Your task to perform on an android device: toggle priority inbox in the gmail app Image 0: 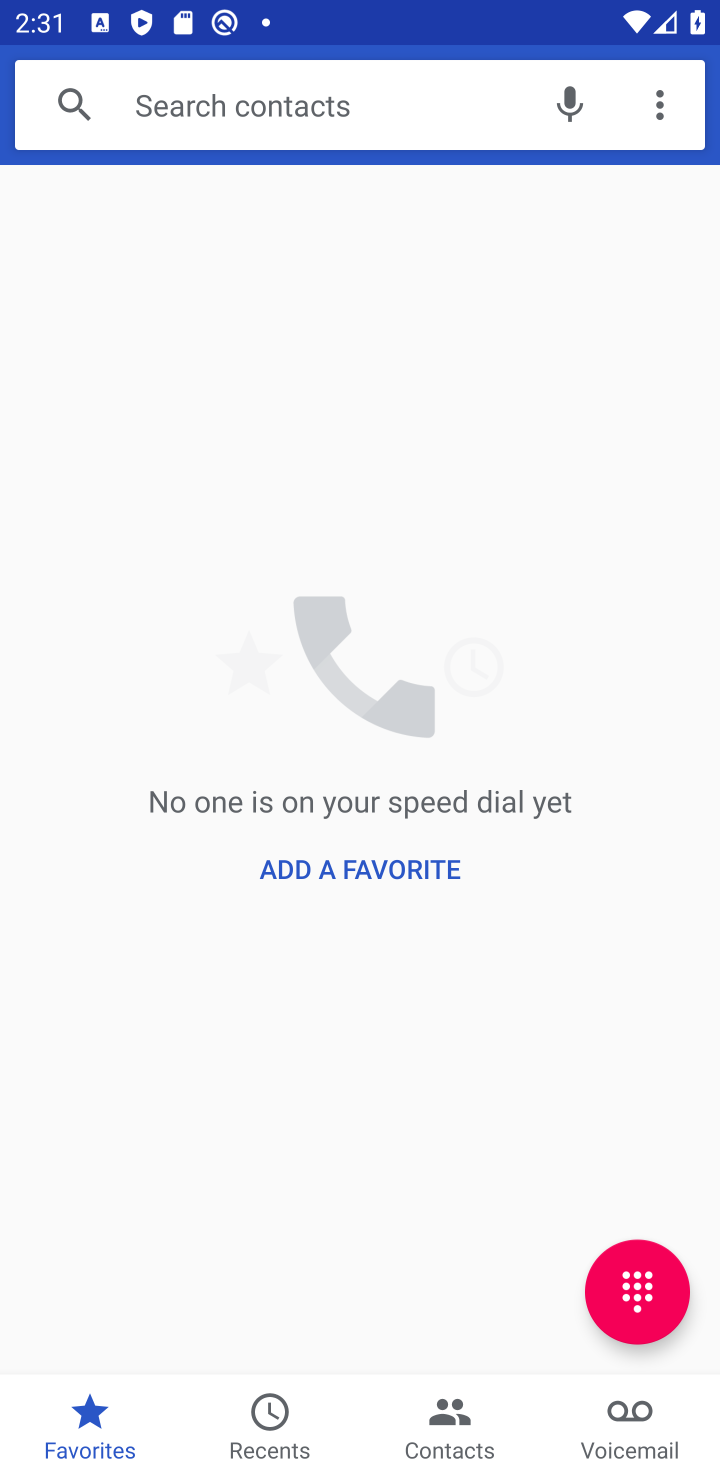
Step 0: press home button
Your task to perform on an android device: toggle priority inbox in the gmail app Image 1: 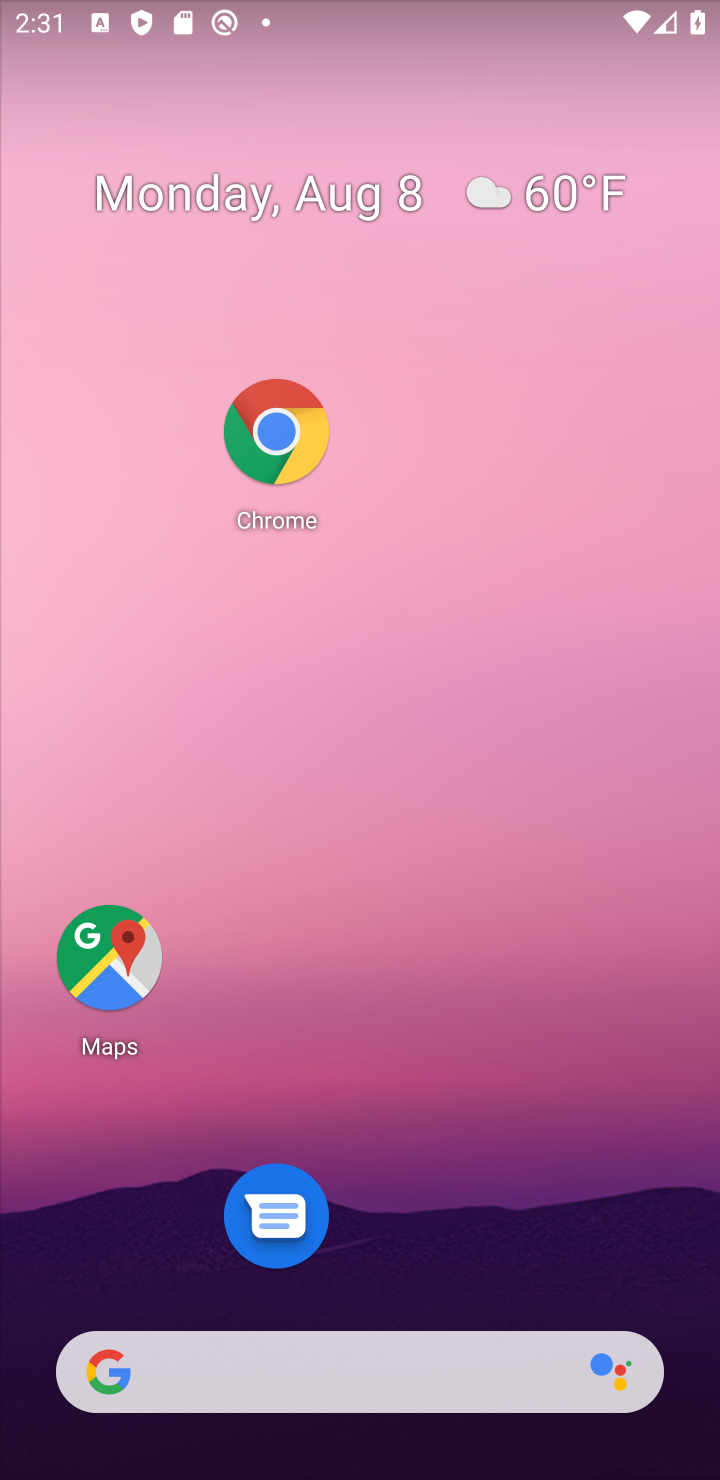
Step 1: drag from (408, 1397) to (401, 307)
Your task to perform on an android device: toggle priority inbox in the gmail app Image 2: 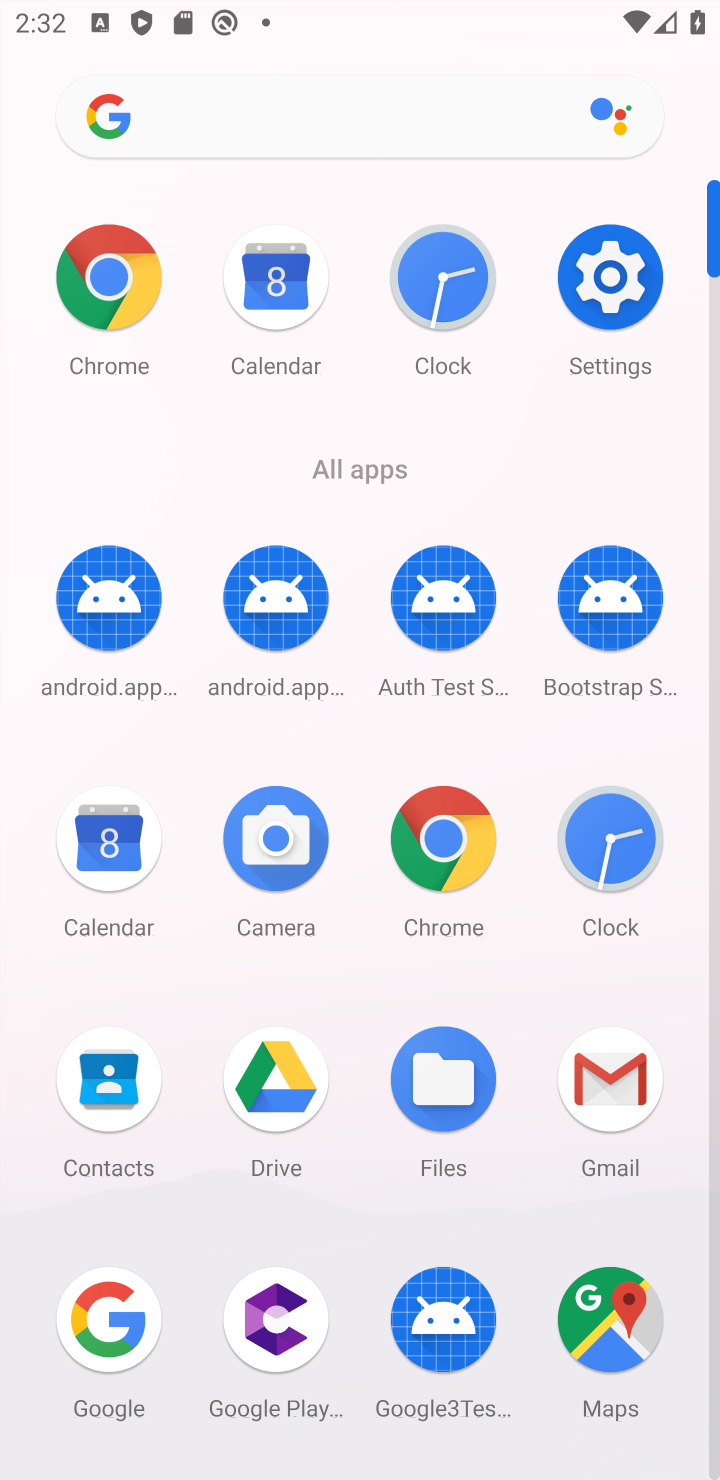
Step 2: click (584, 1087)
Your task to perform on an android device: toggle priority inbox in the gmail app Image 3: 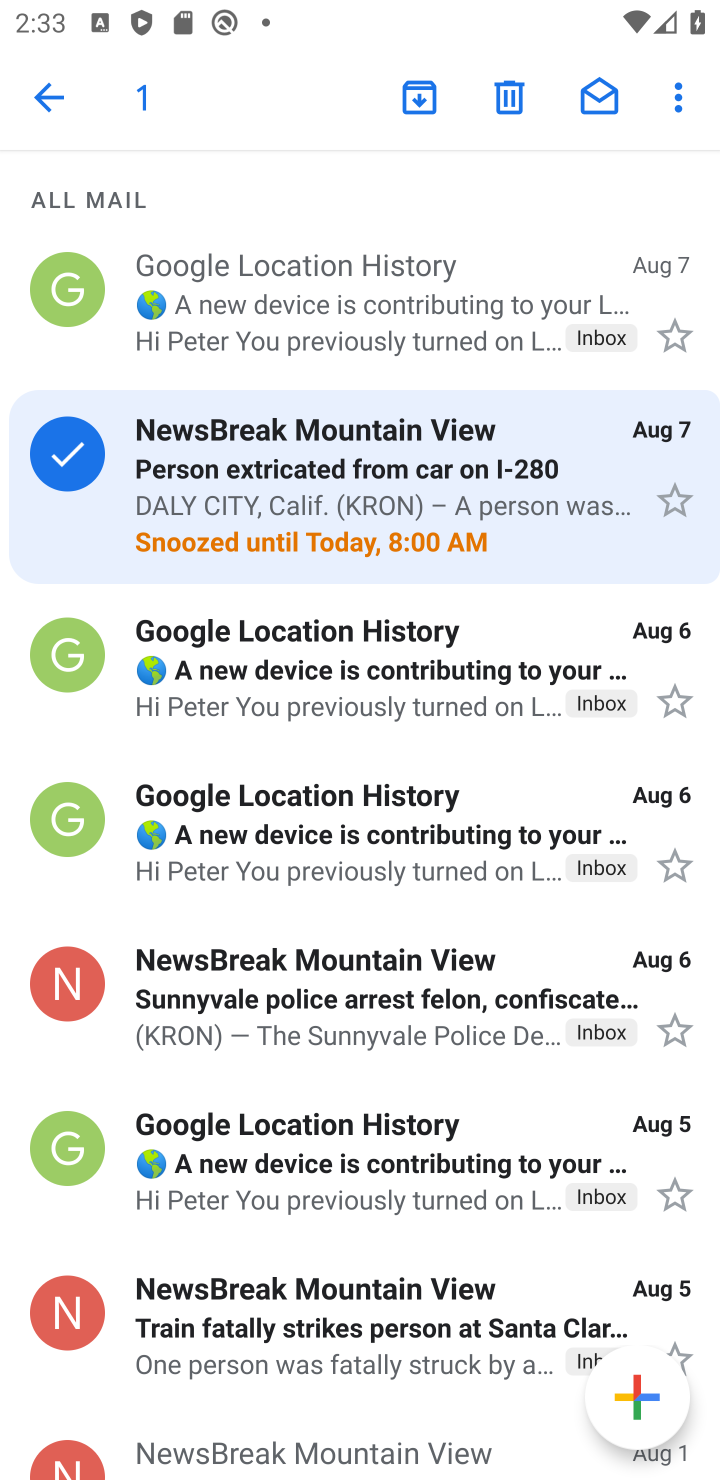
Step 3: click (75, 100)
Your task to perform on an android device: toggle priority inbox in the gmail app Image 4: 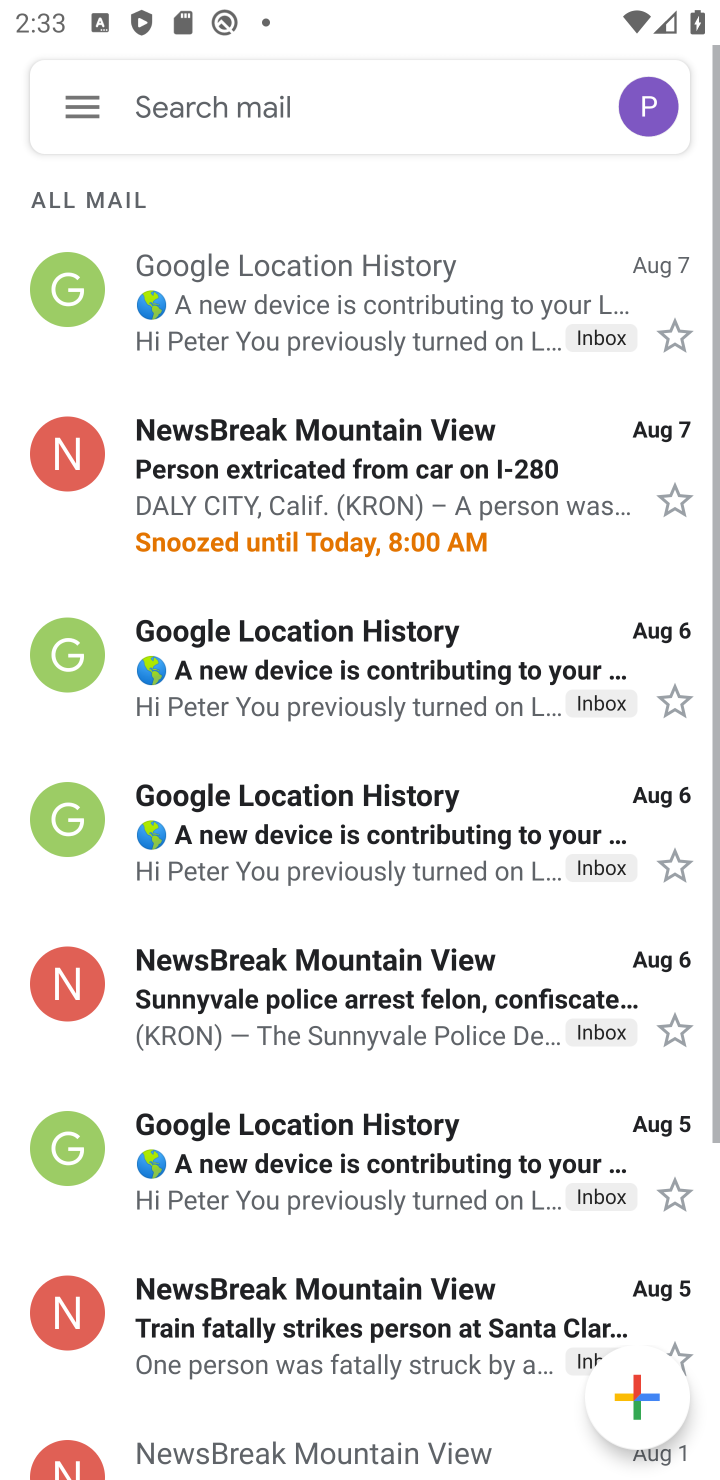
Step 4: click (82, 98)
Your task to perform on an android device: toggle priority inbox in the gmail app Image 5: 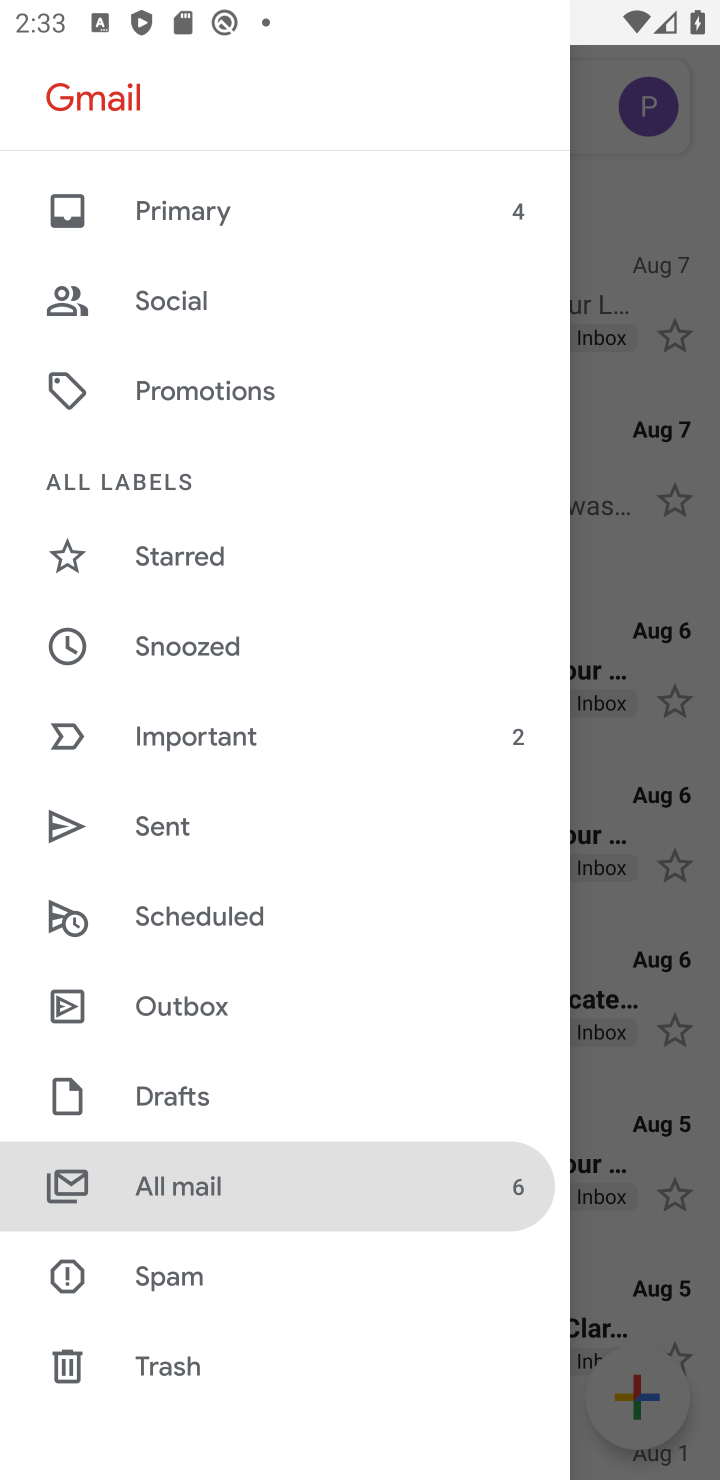
Step 5: drag from (170, 1363) to (149, 491)
Your task to perform on an android device: toggle priority inbox in the gmail app Image 6: 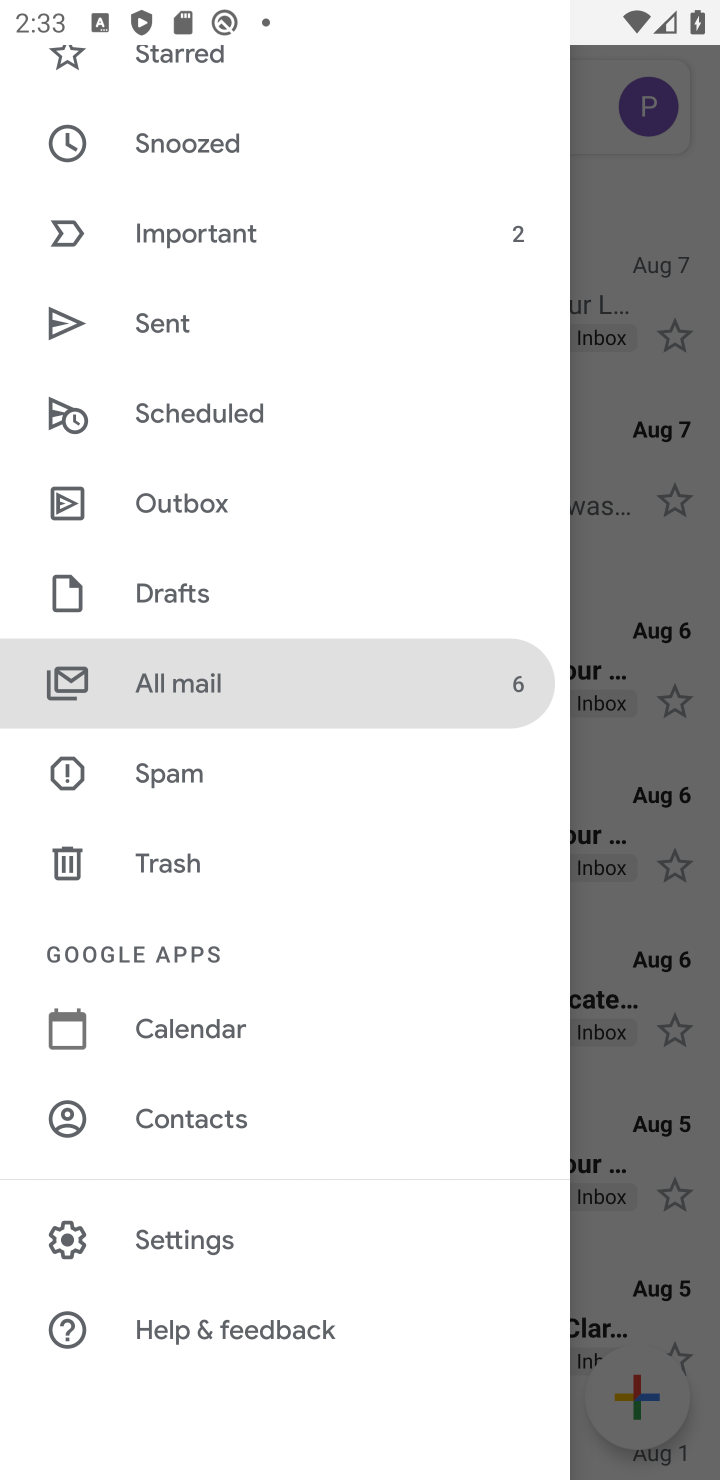
Step 6: click (124, 1255)
Your task to perform on an android device: toggle priority inbox in the gmail app Image 7: 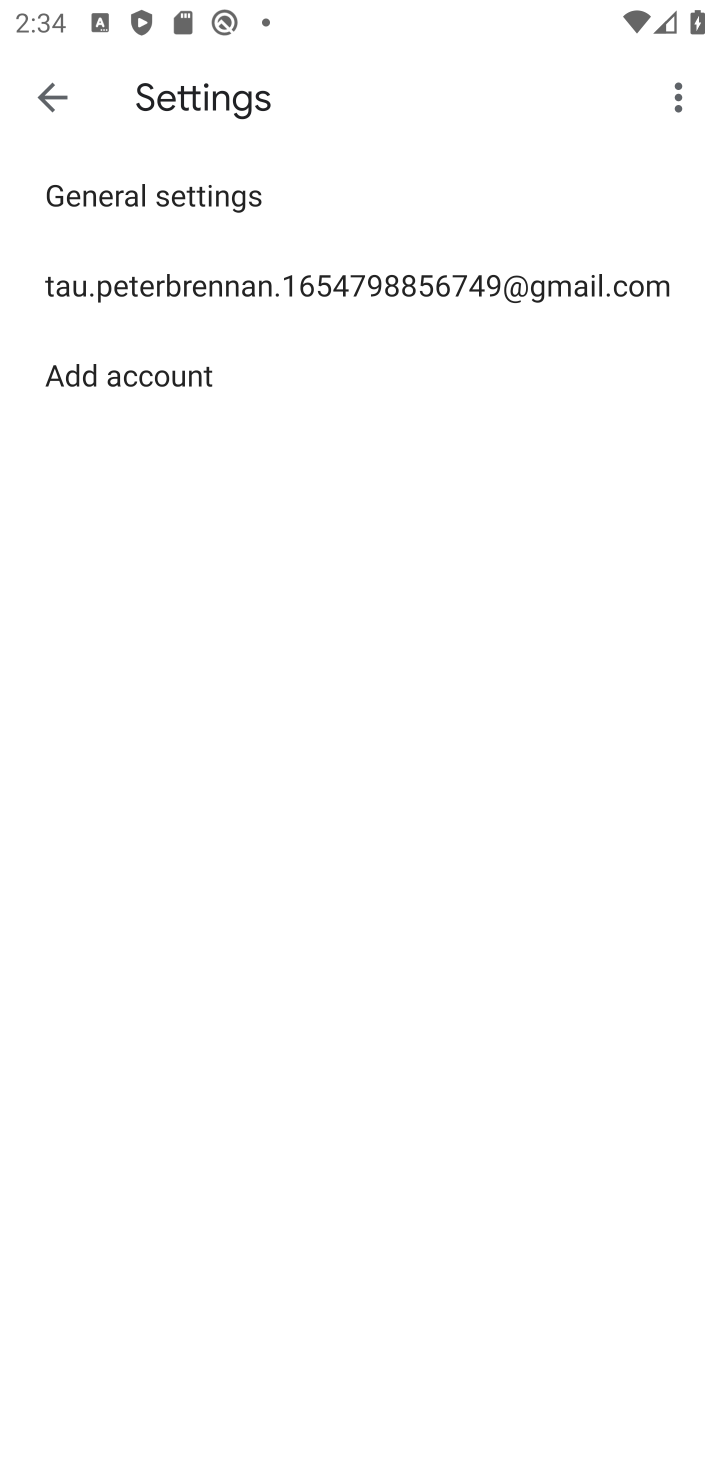
Step 7: click (310, 296)
Your task to perform on an android device: toggle priority inbox in the gmail app Image 8: 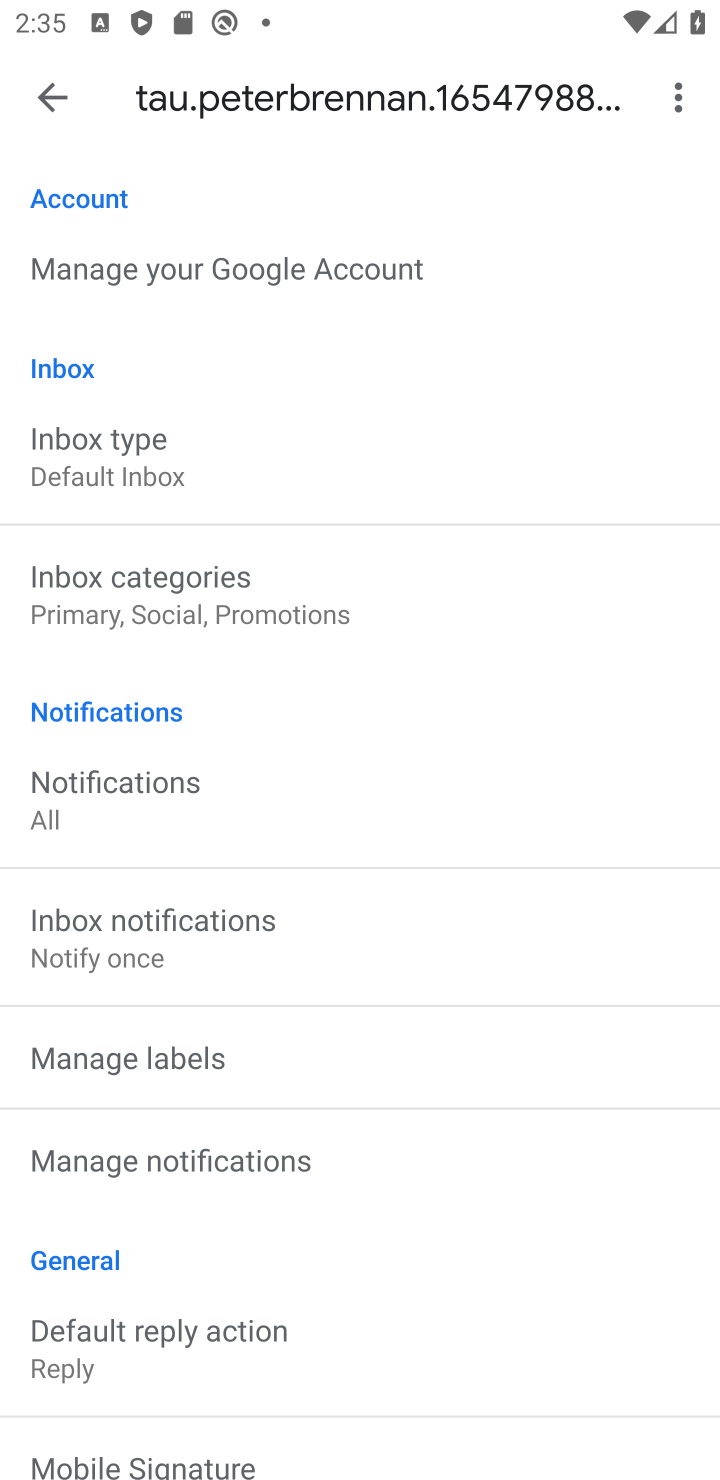
Step 8: click (146, 459)
Your task to perform on an android device: toggle priority inbox in the gmail app Image 9: 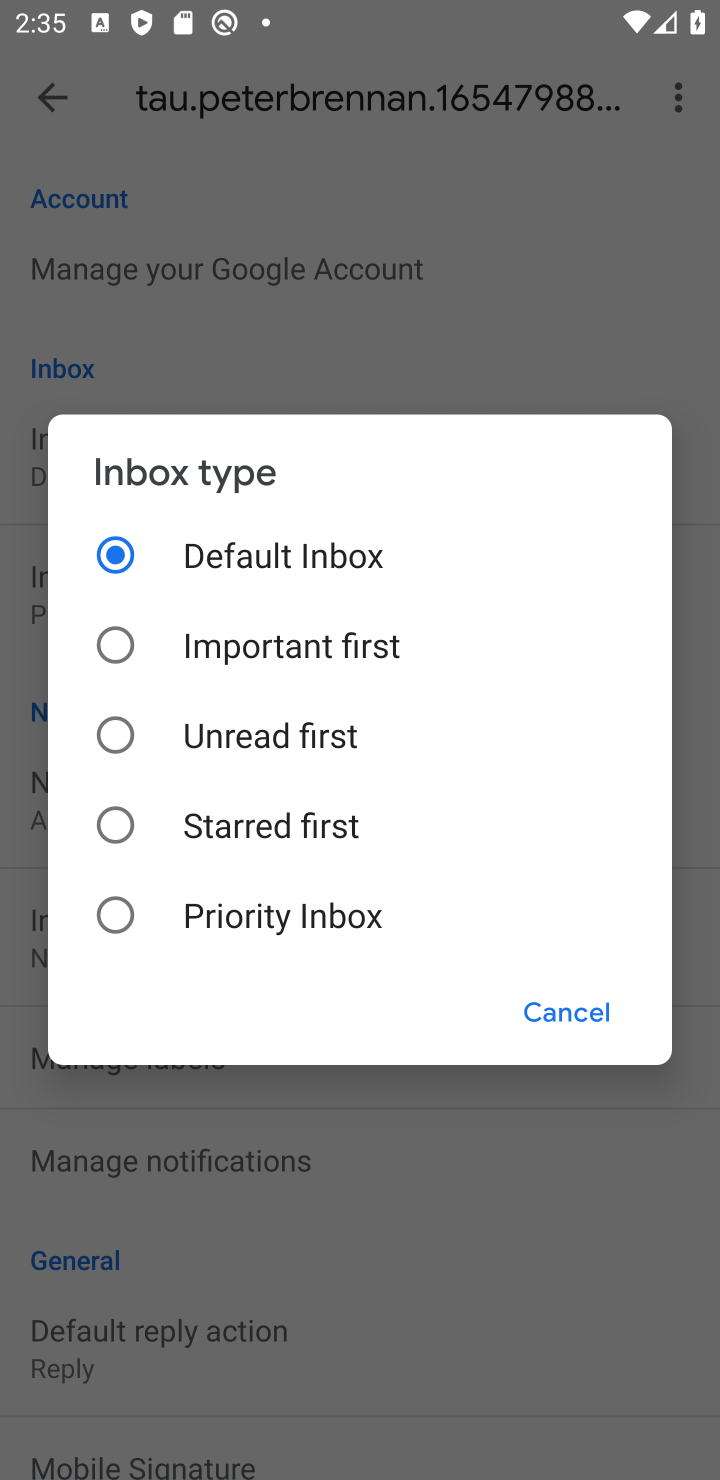
Step 9: click (214, 939)
Your task to perform on an android device: toggle priority inbox in the gmail app Image 10: 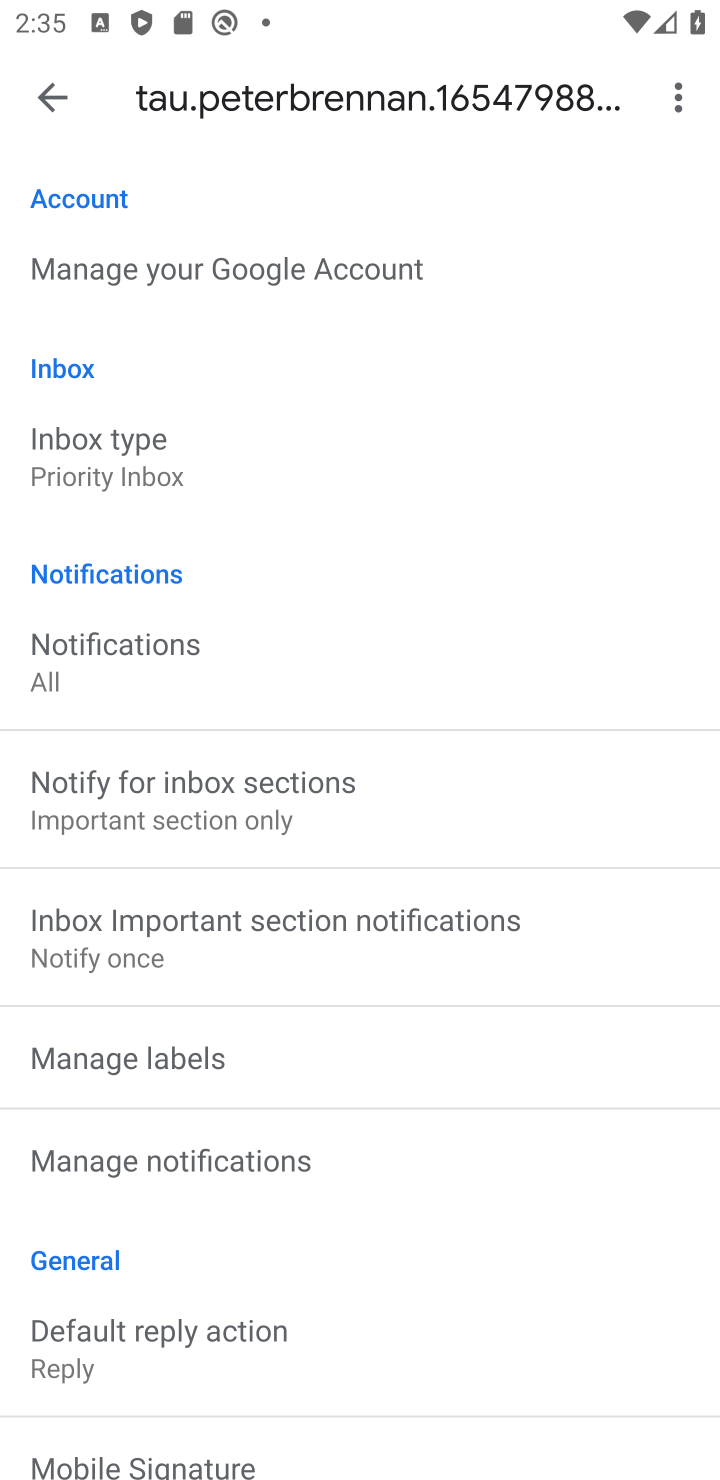
Step 10: task complete